Your task to perform on an android device: refresh tabs in the chrome app Image 0: 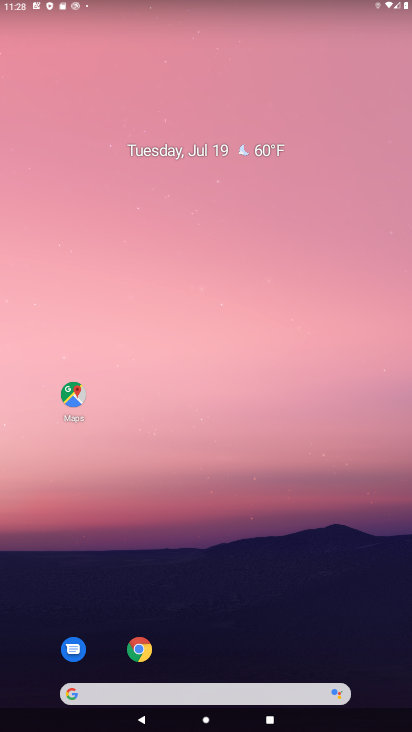
Step 0: click (138, 644)
Your task to perform on an android device: refresh tabs in the chrome app Image 1: 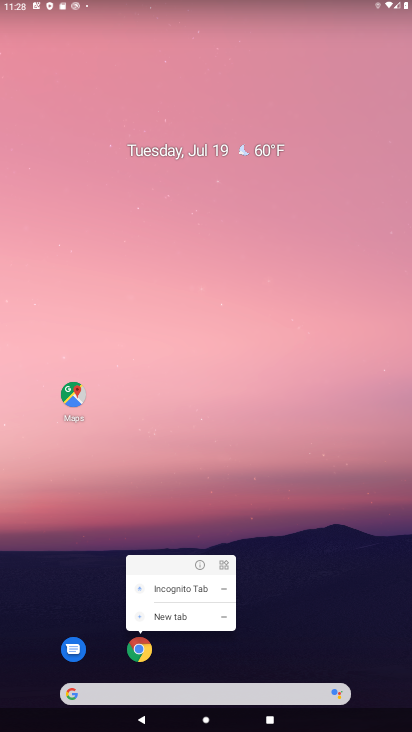
Step 1: click (138, 644)
Your task to perform on an android device: refresh tabs in the chrome app Image 2: 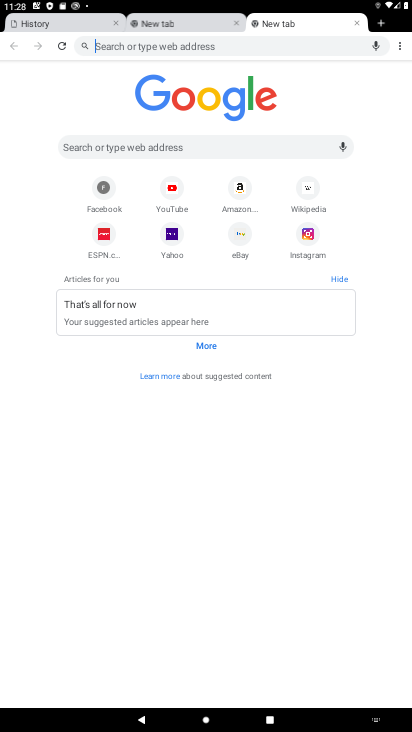
Step 2: click (56, 48)
Your task to perform on an android device: refresh tabs in the chrome app Image 3: 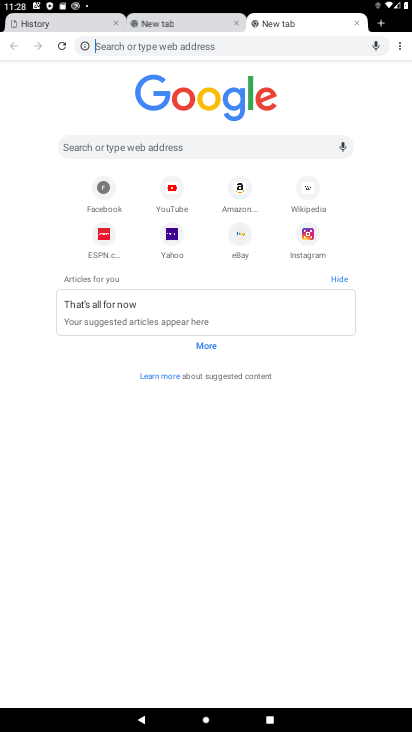
Step 3: task complete